Your task to perform on an android device: What's the weather going to be tomorrow? Image 0: 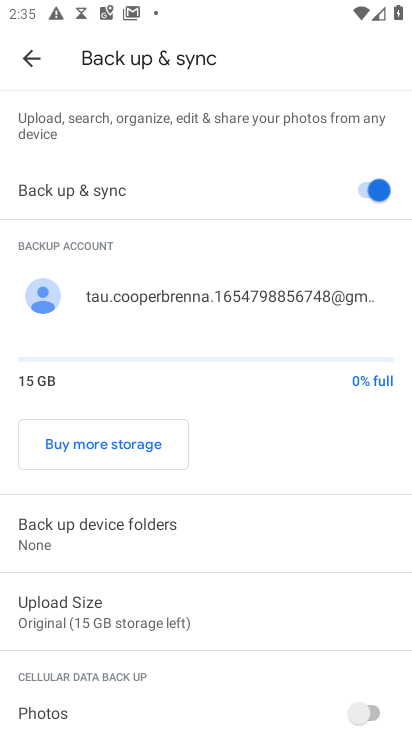
Step 0: press home button
Your task to perform on an android device: What's the weather going to be tomorrow? Image 1: 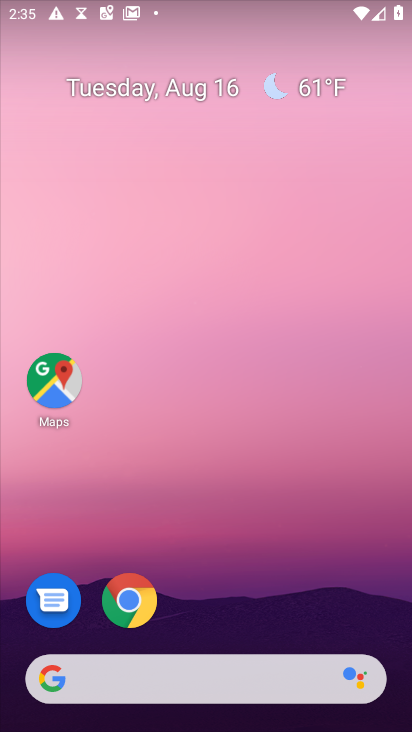
Step 1: click (298, 88)
Your task to perform on an android device: What's the weather going to be tomorrow? Image 2: 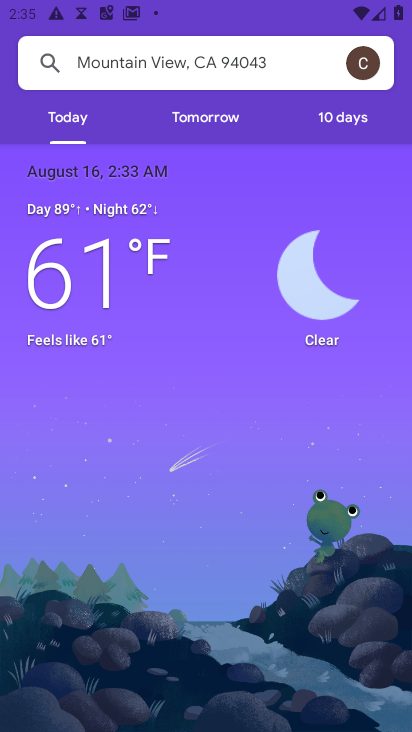
Step 2: click (201, 121)
Your task to perform on an android device: What's the weather going to be tomorrow? Image 3: 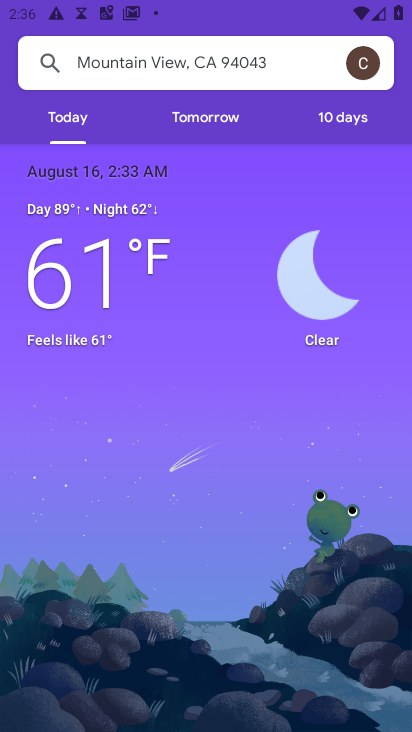
Step 3: click (213, 132)
Your task to perform on an android device: What's the weather going to be tomorrow? Image 4: 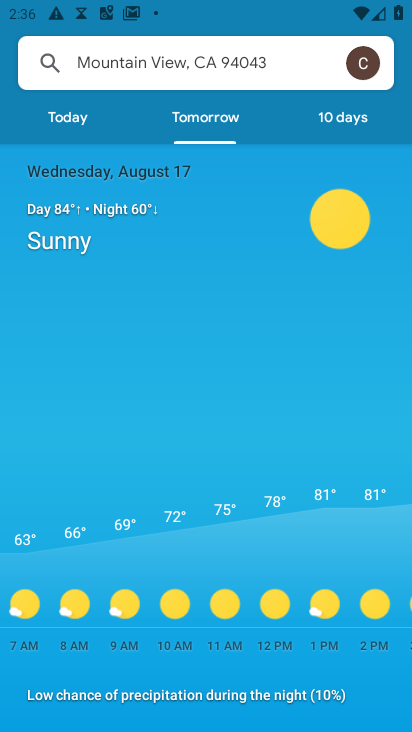
Step 4: task complete